Your task to perform on an android device: Search for the new Apple Watch on Best Buy Image 0: 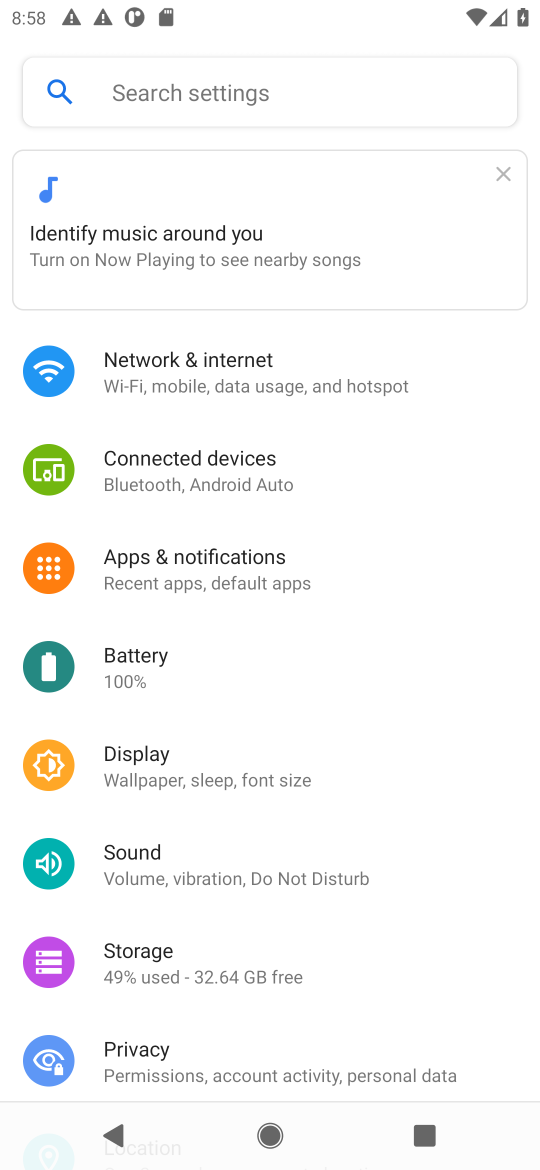
Step 0: press home button
Your task to perform on an android device: Search for the new Apple Watch on Best Buy Image 1: 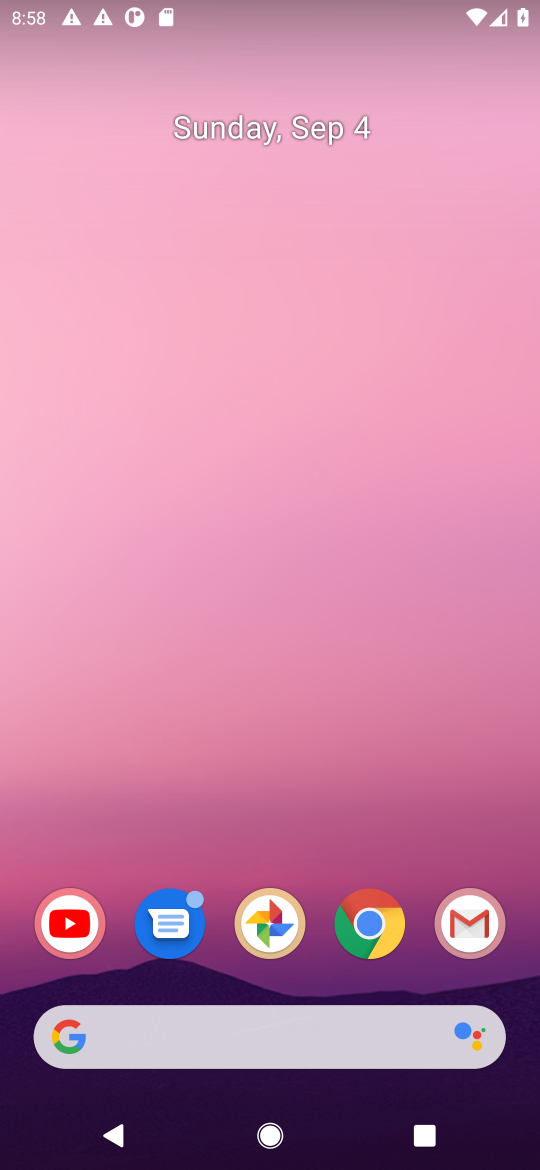
Step 1: click (363, 941)
Your task to perform on an android device: Search for the new Apple Watch on Best Buy Image 2: 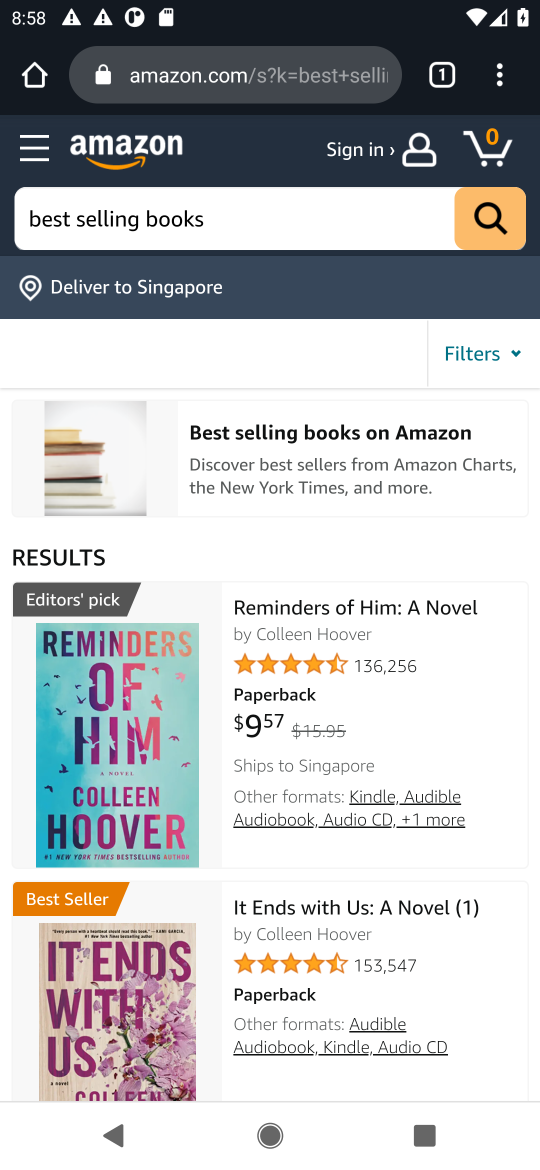
Step 2: click (227, 81)
Your task to perform on an android device: Search for the new Apple Watch on Best Buy Image 3: 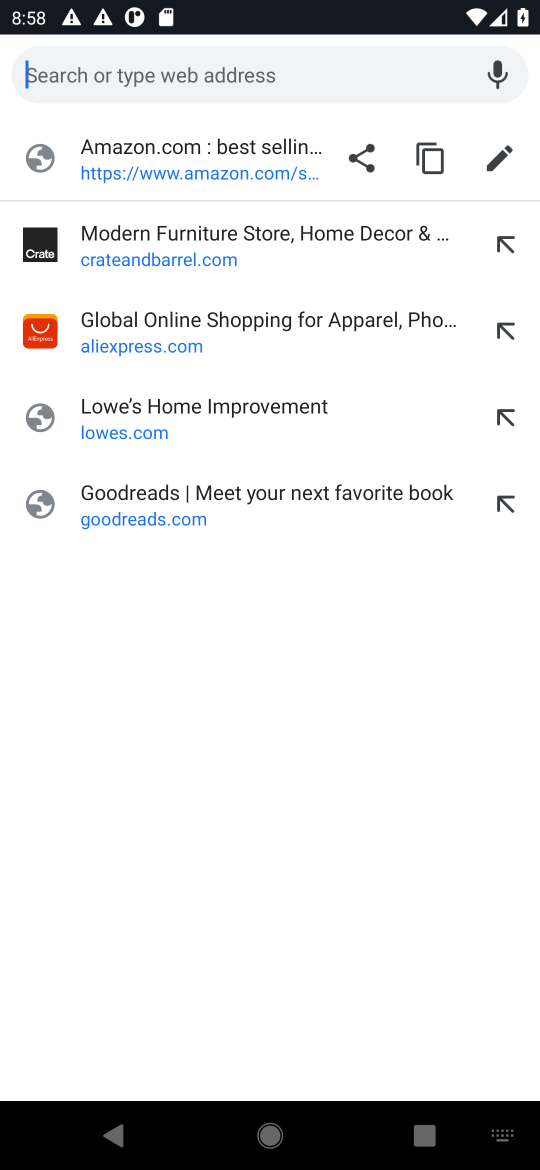
Step 3: type "best buy"
Your task to perform on an android device: Search for the new Apple Watch on Best Buy Image 4: 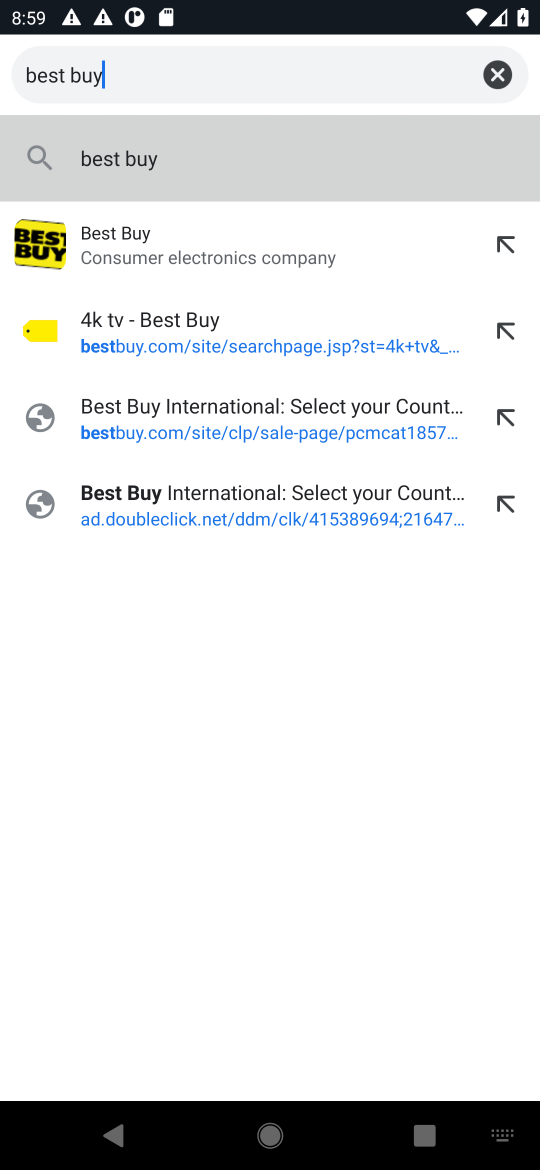
Step 4: click (187, 240)
Your task to perform on an android device: Search for the new Apple Watch on Best Buy Image 5: 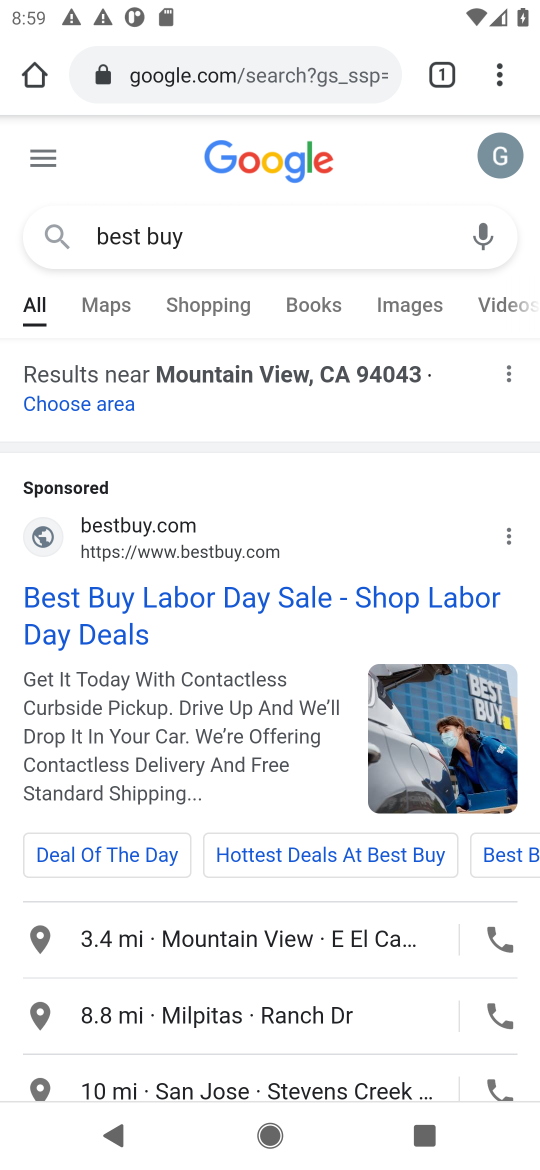
Step 5: click (225, 598)
Your task to perform on an android device: Search for the new Apple Watch on Best Buy Image 6: 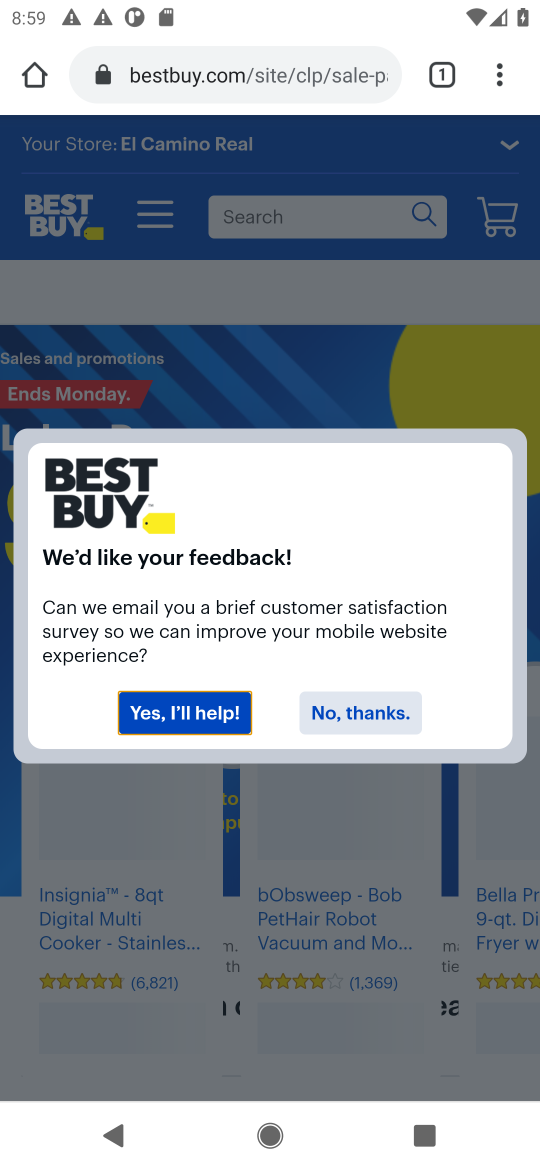
Step 6: click (308, 708)
Your task to perform on an android device: Search for the new Apple Watch on Best Buy Image 7: 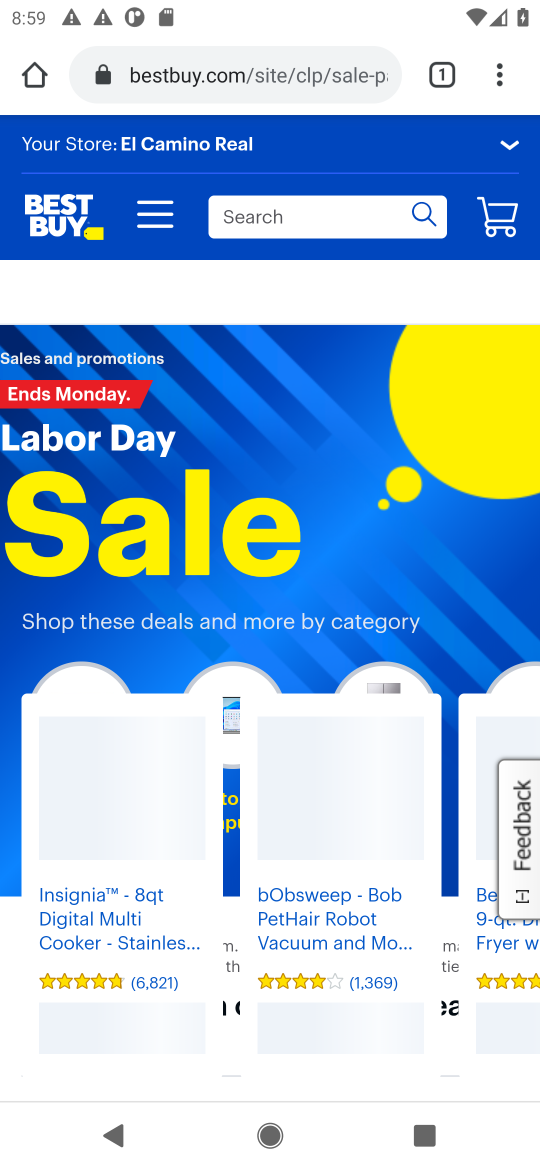
Step 7: click (422, 216)
Your task to perform on an android device: Search for the new Apple Watch on Best Buy Image 8: 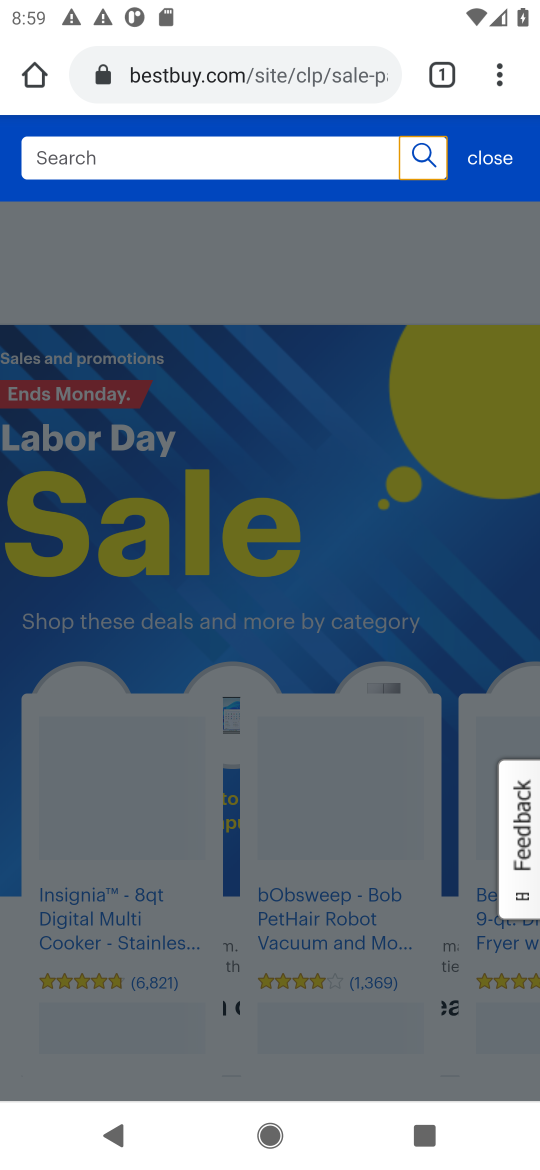
Step 8: type "new apple watch"
Your task to perform on an android device: Search for the new Apple Watch on Best Buy Image 9: 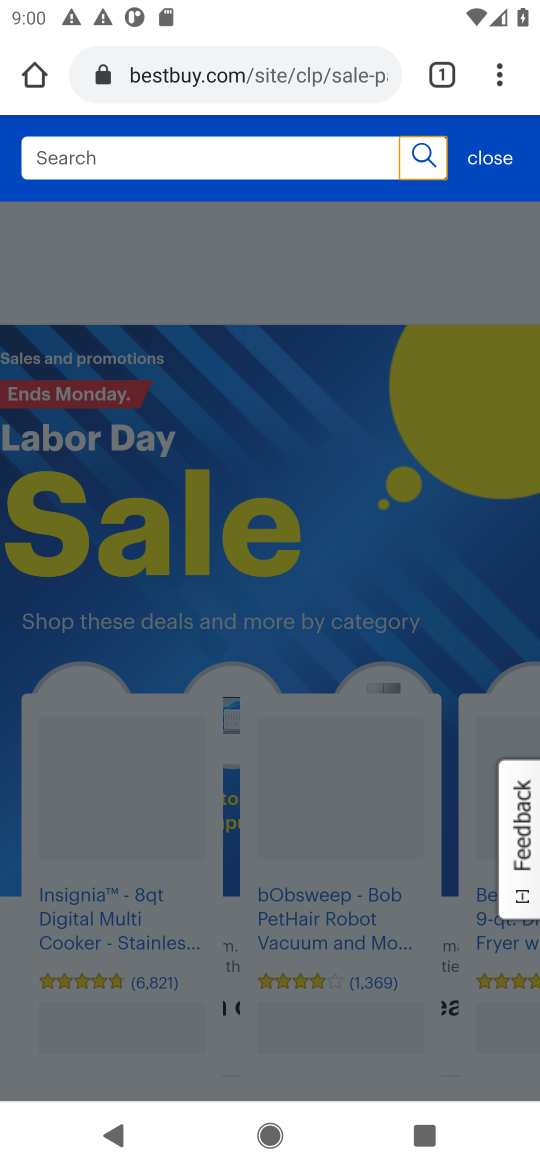
Step 9: click (336, 149)
Your task to perform on an android device: Search for the new Apple Watch on Best Buy Image 10: 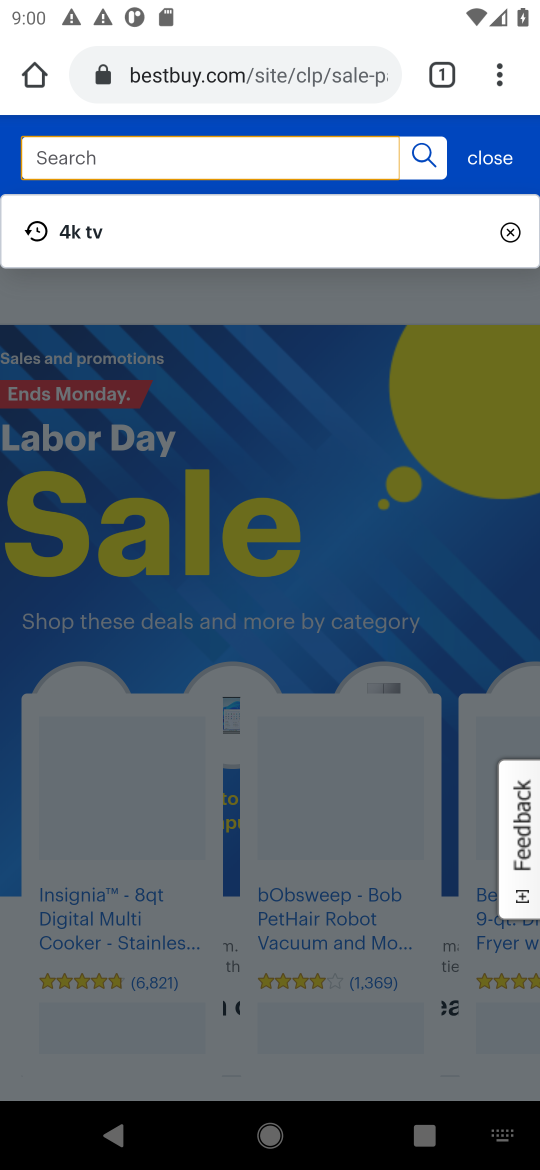
Step 10: type "new apple watch"
Your task to perform on an android device: Search for the new Apple Watch on Best Buy Image 11: 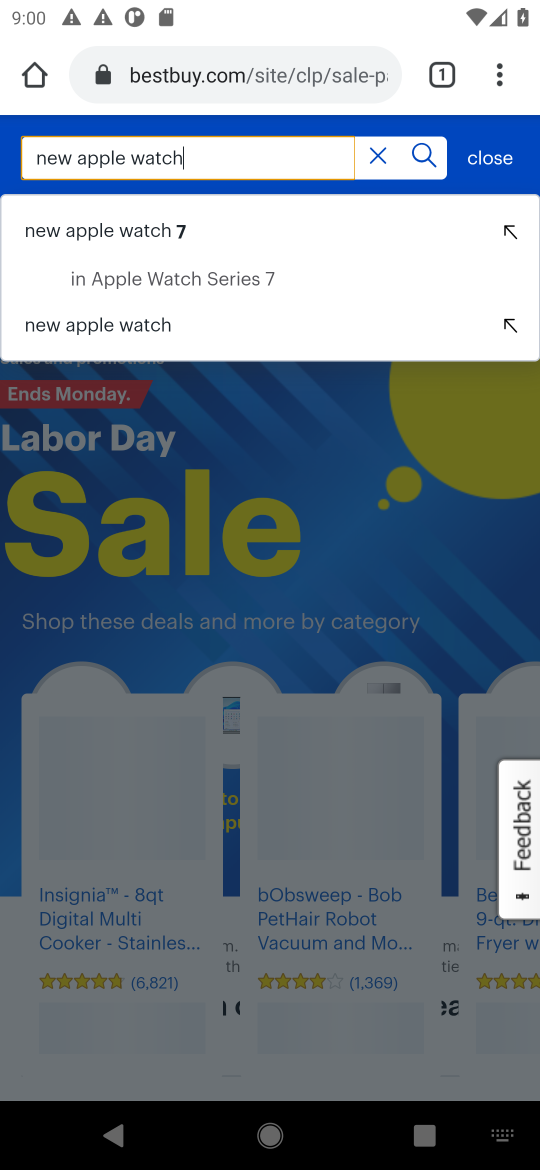
Step 11: click (423, 149)
Your task to perform on an android device: Search for the new Apple Watch on Best Buy Image 12: 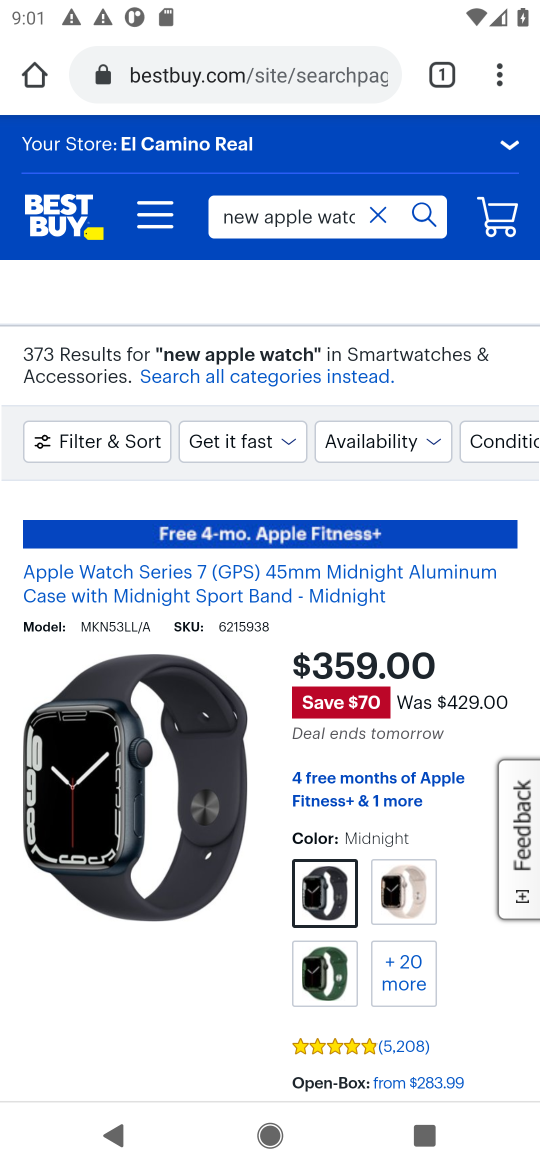
Step 12: task complete